Your task to perform on an android device: Open location settings Image 0: 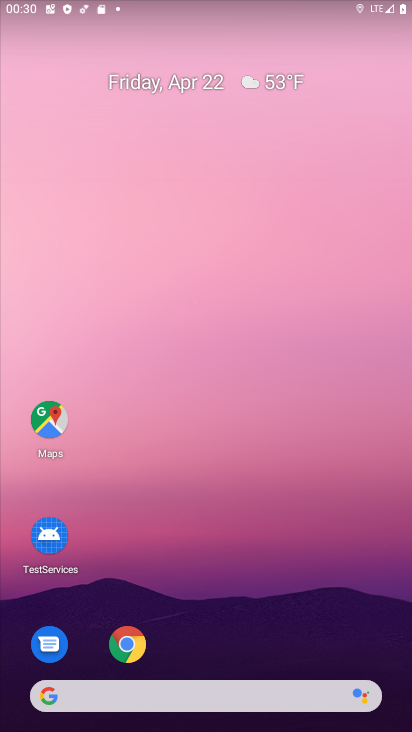
Step 0: drag from (348, 615) to (268, 161)
Your task to perform on an android device: Open location settings Image 1: 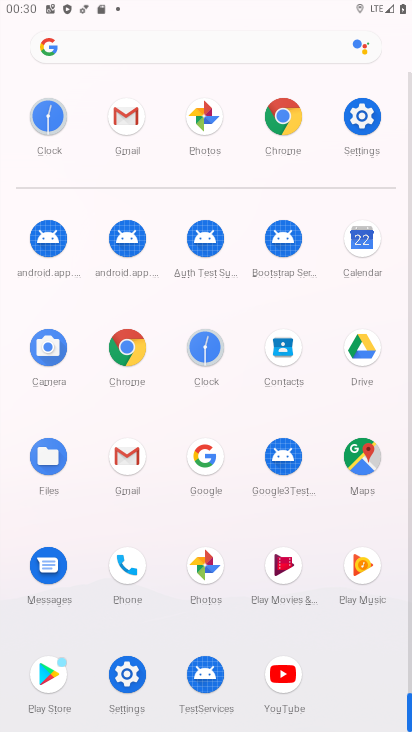
Step 1: click (117, 670)
Your task to perform on an android device: Open location settings Image 2: 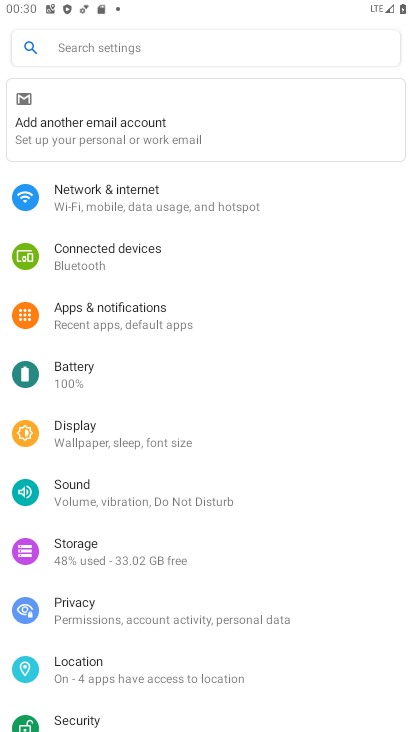
Step 2: drag from (135, 595) to (170, 242)
Your task to perform on an android device: Open location settings Image 3: 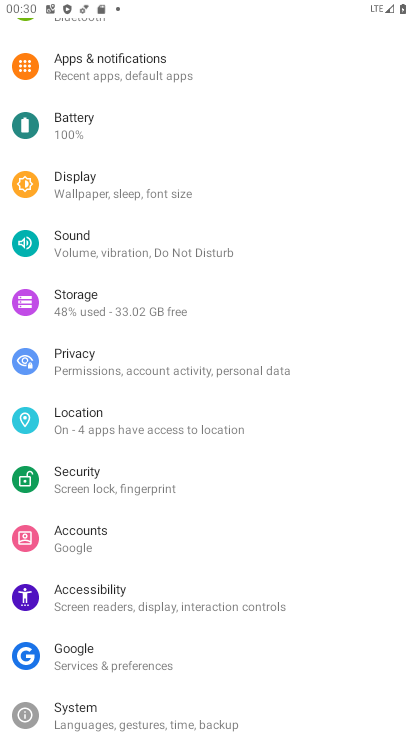
Step 3: click (116, 427)
Your task to perform on an android device: Open location settings Image 4: 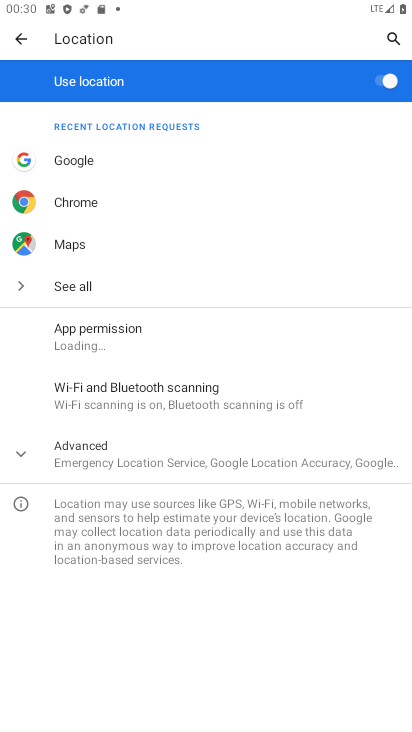
Step 4: task complete